Your task to perform on an android device: see sites visited before in the chrome app Image 0: 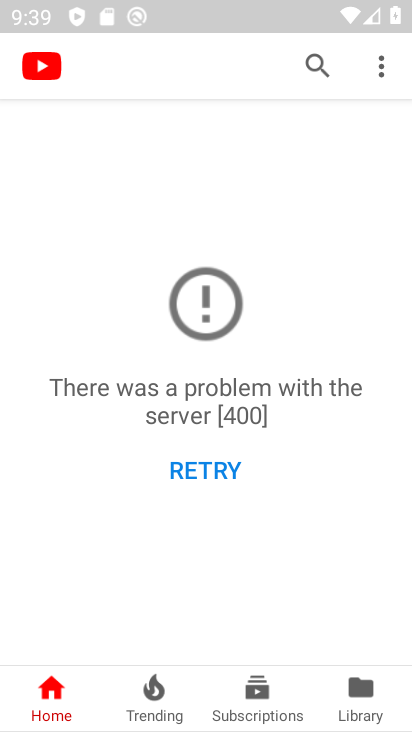
Step 0: task complete